Your task to perform on an android device: open device folders in google photos Image 0: 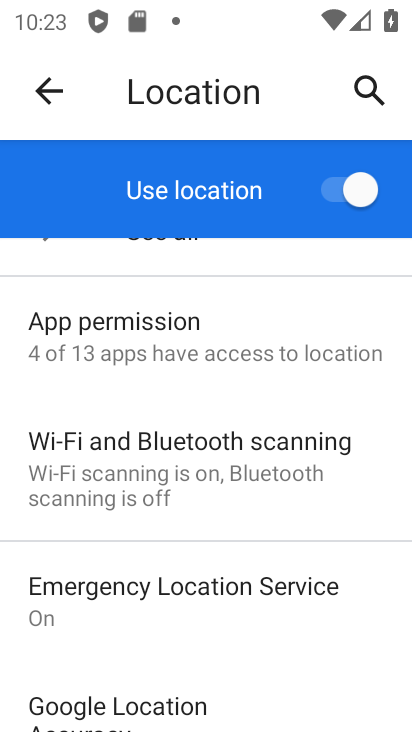
Step 0: press home button
Your task to perform on an android device: open device folders in google photos Image 1: 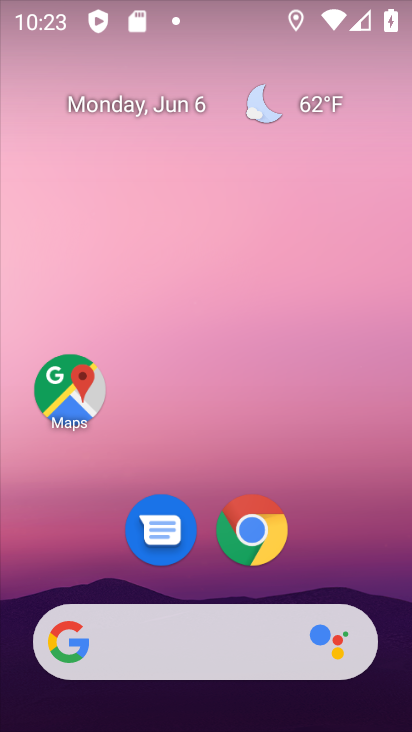
Step 1: drag from (319, 529) to (318, 73)
Your task to perform on an android device: open device folders in google photos Image 2: 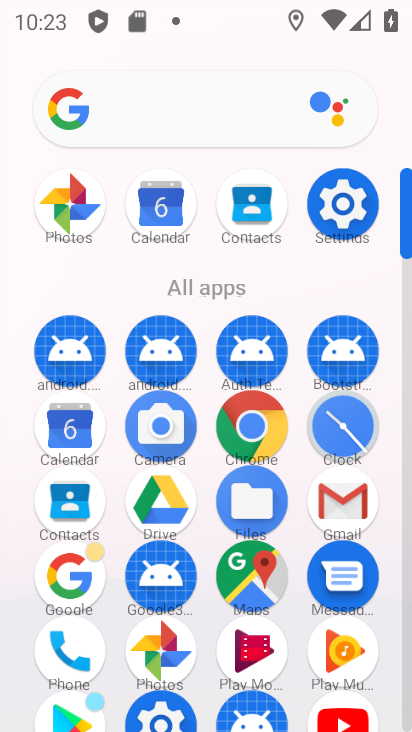
Step 2: click (63, 196)
Your task to perform on an android device: open device folders in google photos Image 3: 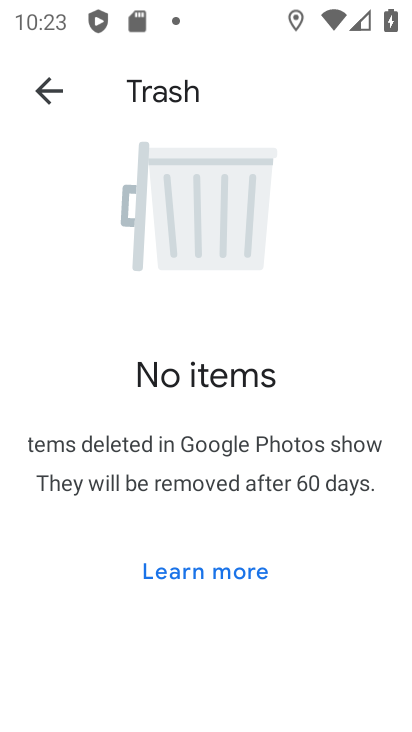
Step 3: press back button
Your task to perform on an android device: open device folders in google photos Image 4: 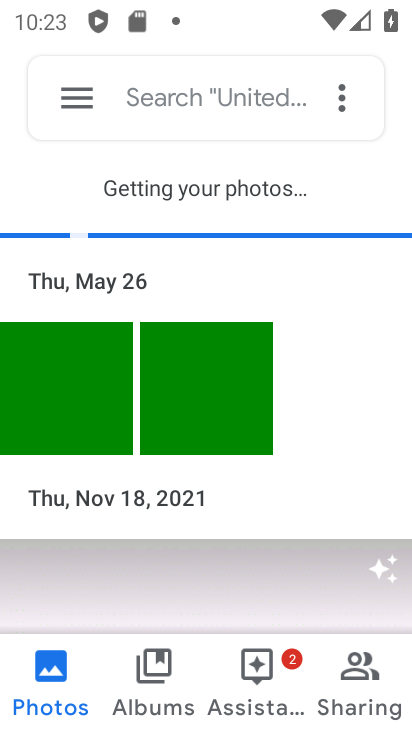
Step 4: click (56, 105)
Your task to perform on an android device: open device folders in google photos Image 5: 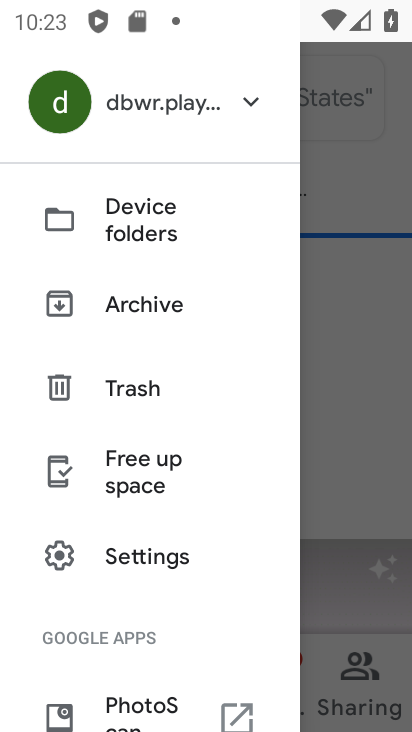
Step 5: click (146, 216)
Your task to perform on an android device: open device folders in google photos Image 6: 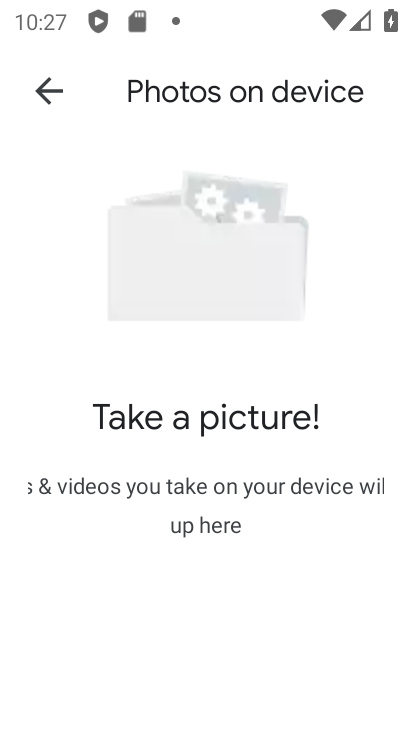
Step 6: task complete